Your task to perform on an android device: open device folders in google photos Image 0: 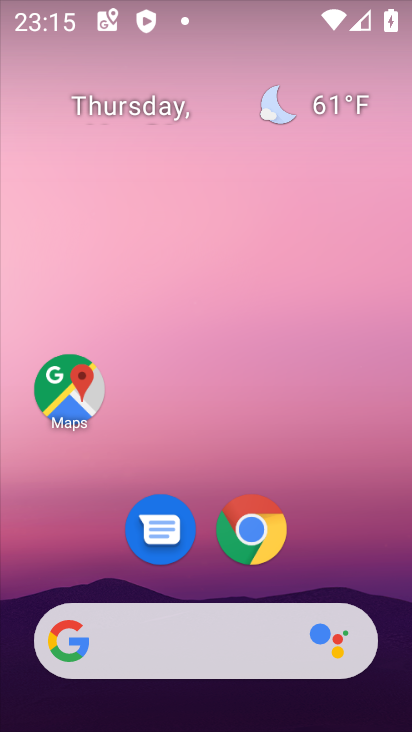
Step 0: drag from (328, 560) to (270, 79)
Your task to perform on an android device: open device folders in google photos Image 1: 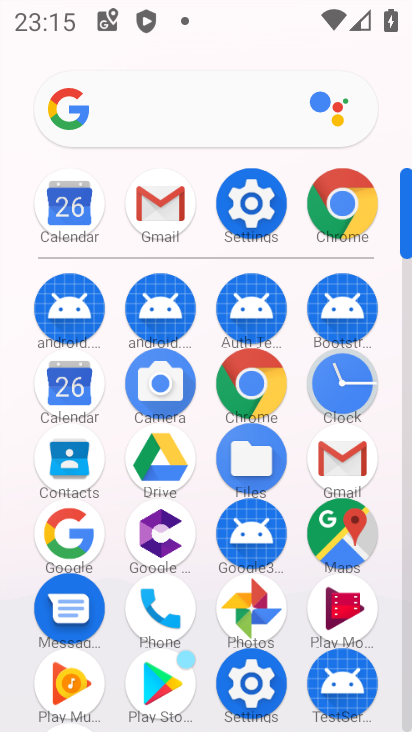
Step 1: click (243, 618)
Your task to perform on an android device: open device folders in google photos Image 2: 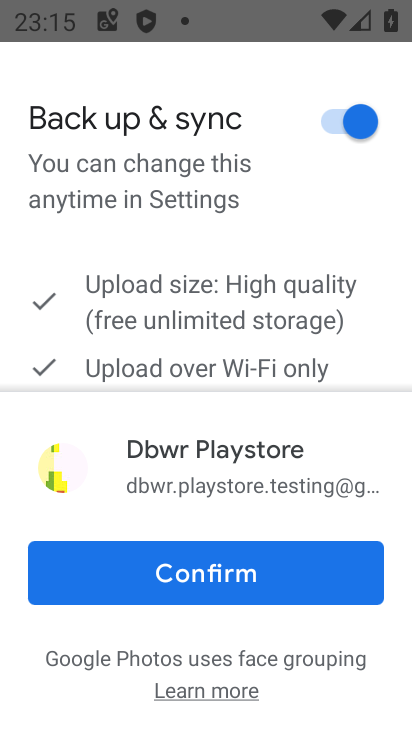
Step 2: click (226, 561)
Your task to perform on an android device: open device folders in google photos Image 3: 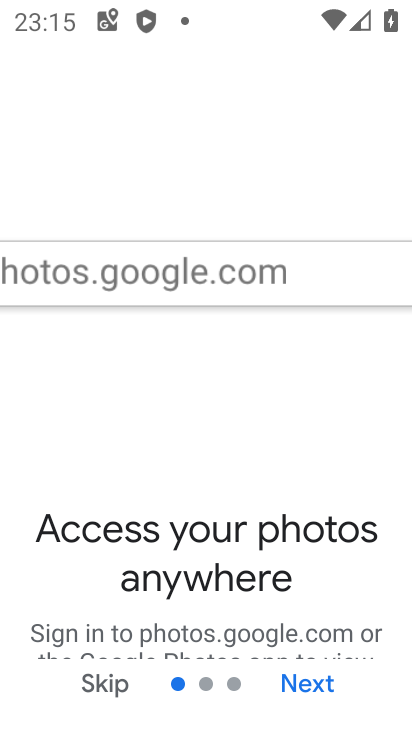
Step 3: click (117, 694)
Your task to perform on an android device: open device folders in google photos Image 4: 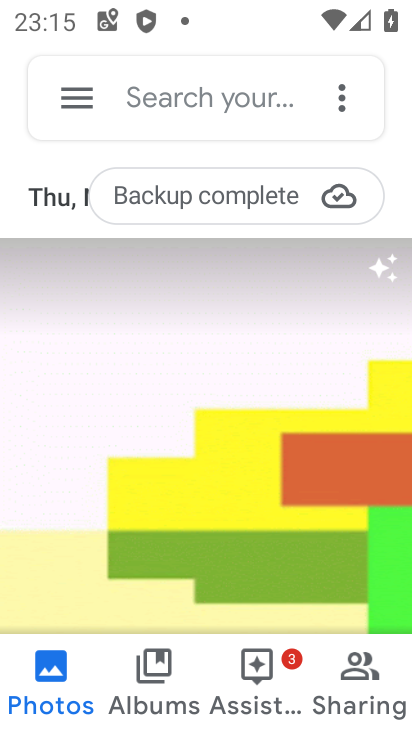
Step 4: click (77, 100)
Your task to perform on an android device: open device folders in google photos Image 5: 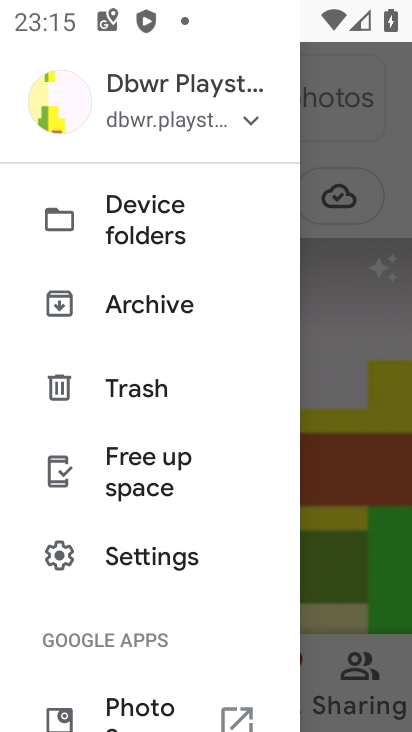
Step 5: click (91, 223)
Your task to perform on an android device: open device folders in google photos Image 6: 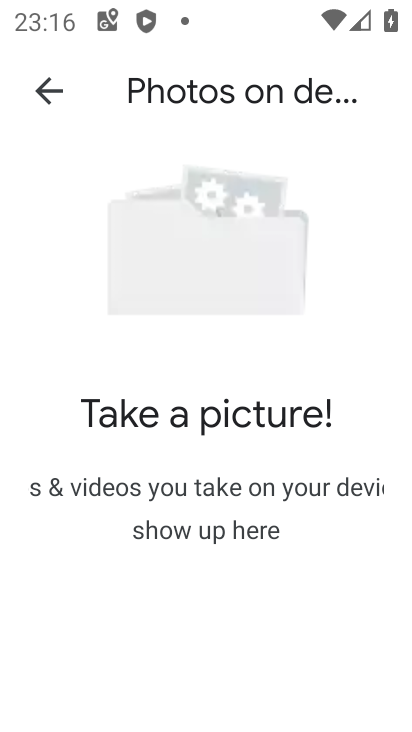
Step 6: task complete